Your task to perform on an android device: toggle javascript in the chrome app Image 0: 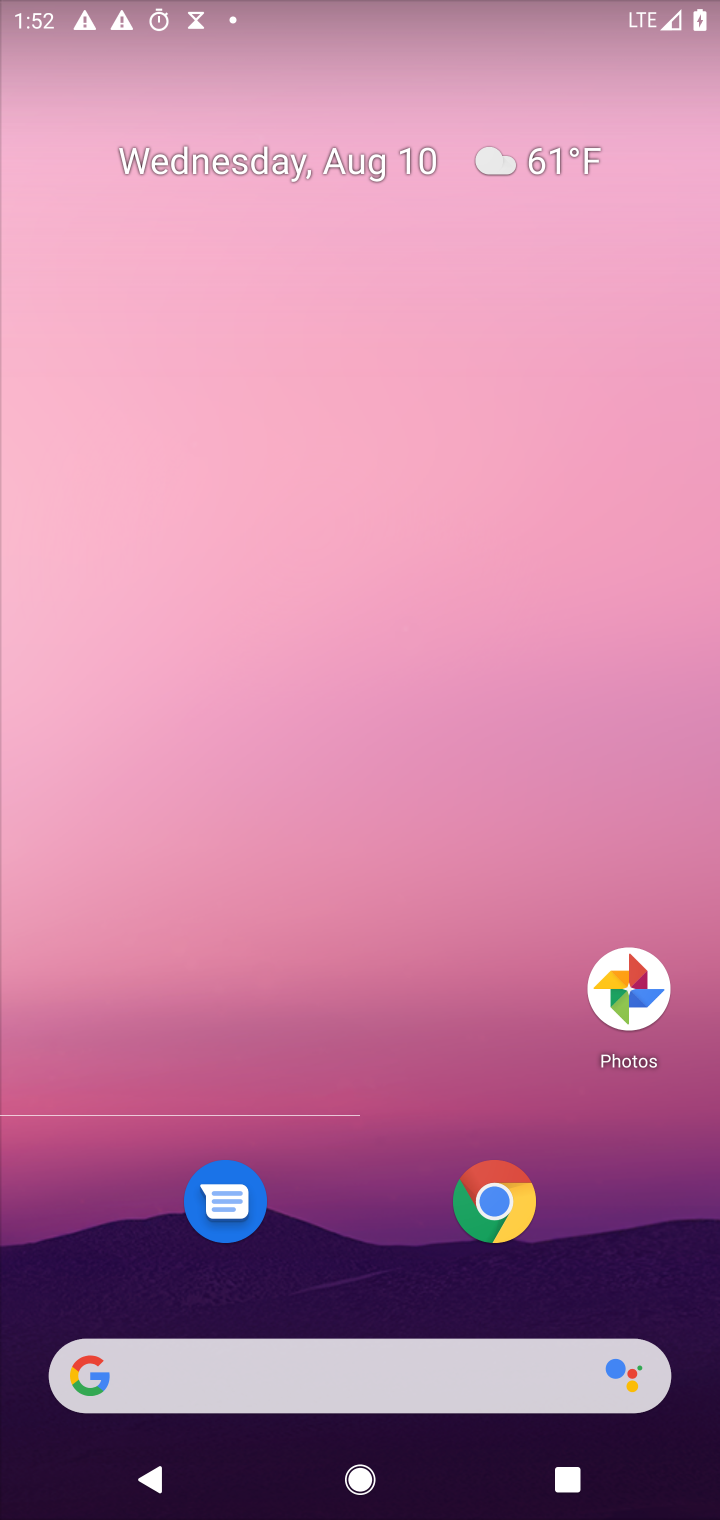
Step 0: click (497, 1211)
Your task to perform on an android device: toggle javascript in the chrome app Image 1: 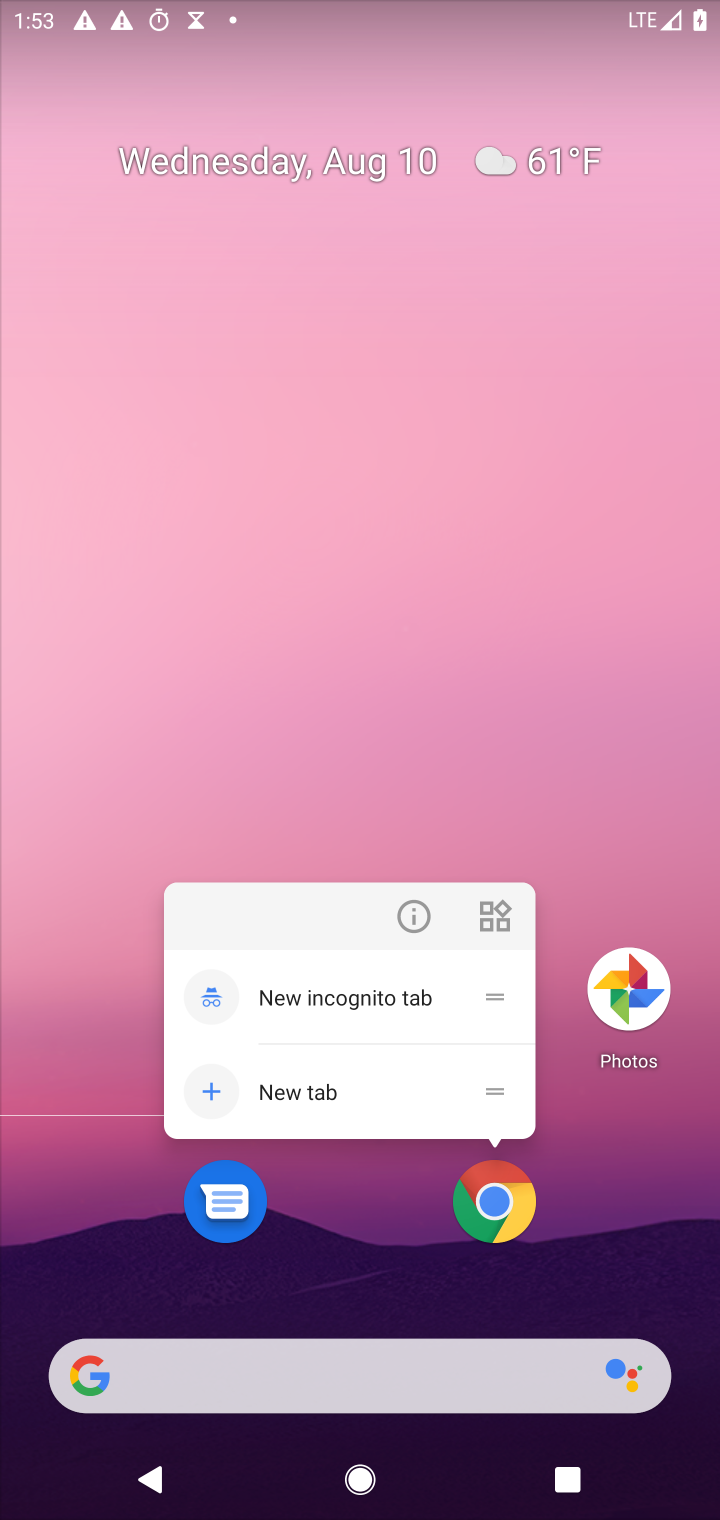
Step 1: click (497, 1211)
Your task to perform on an android device: toggle javascript in the chrome app Image 2: 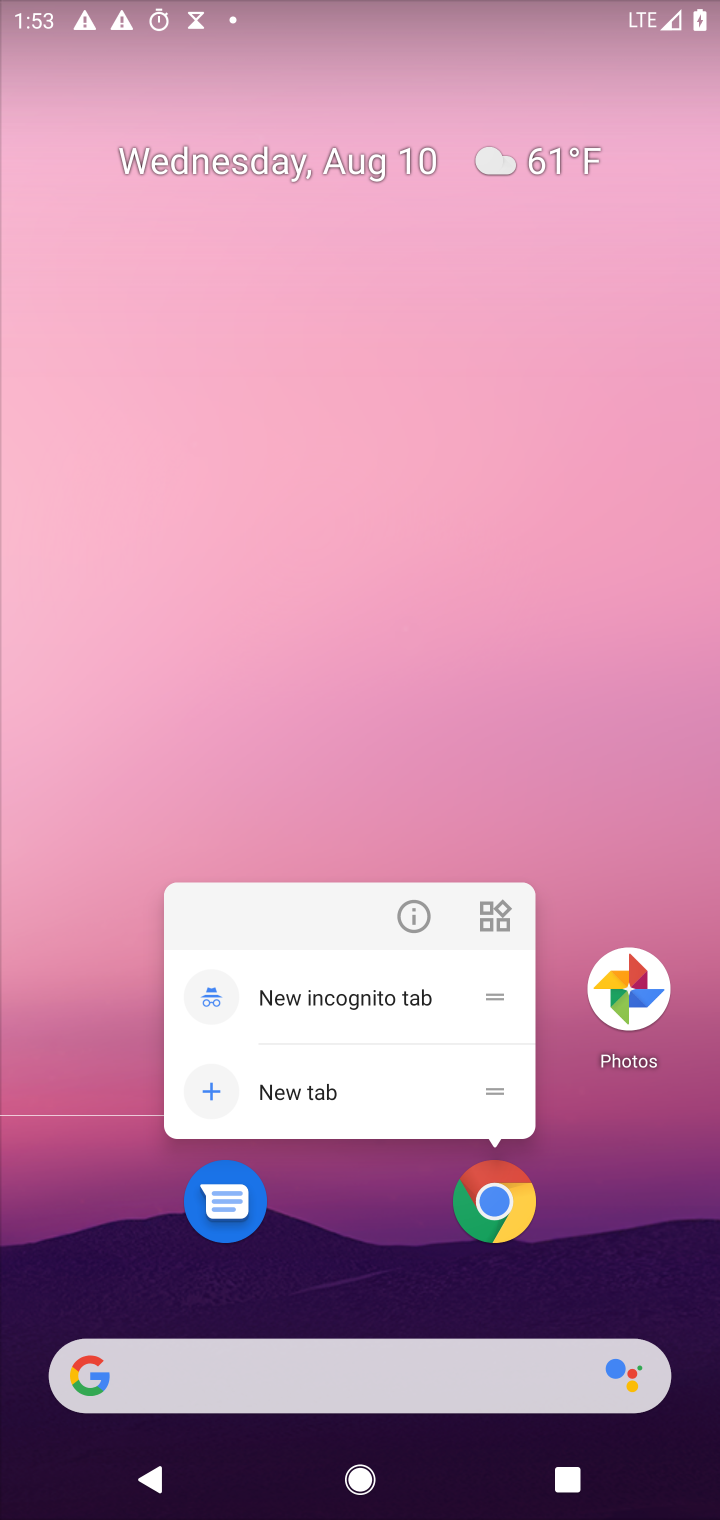
Step 2: click (497, 1211)
Your task to perform on an android device: toggle javascript in the chrome app Image 3: 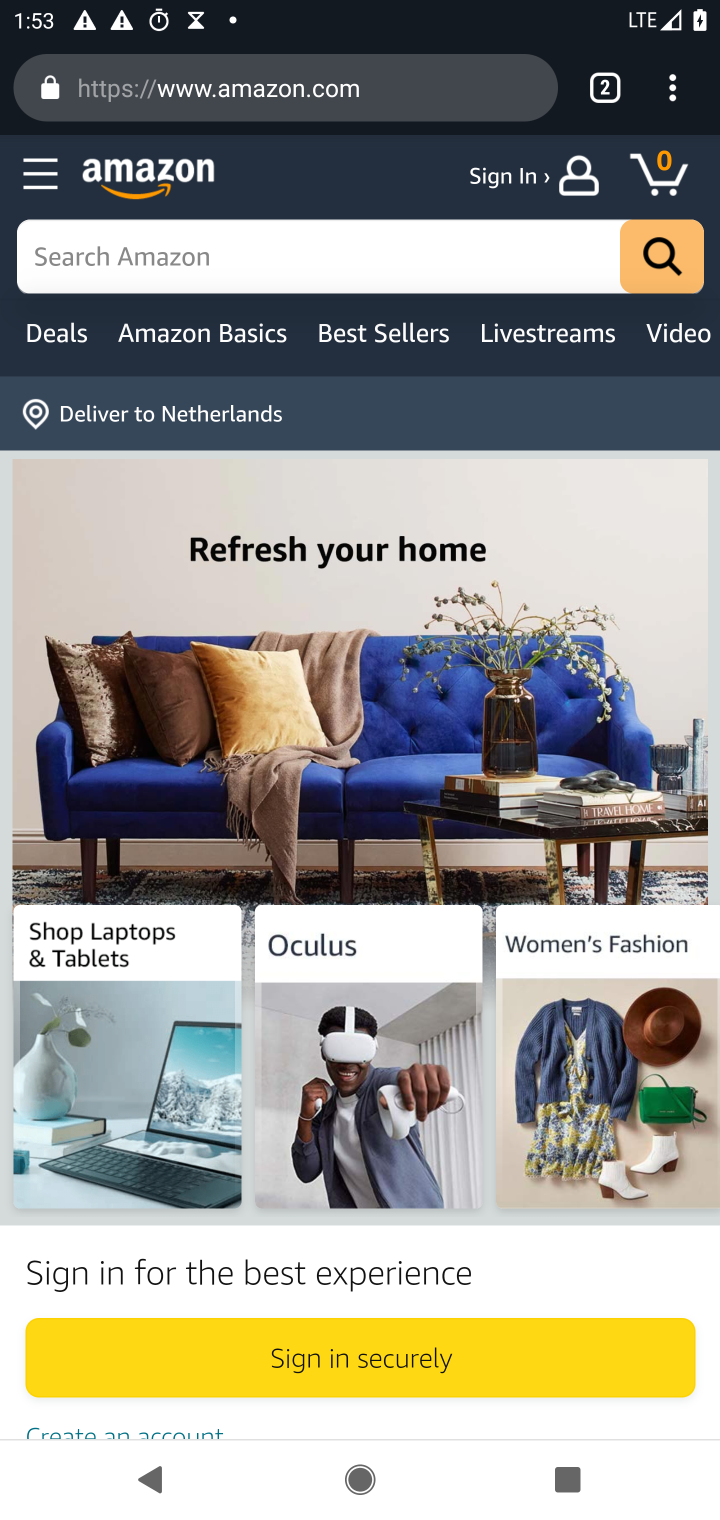
Step 3: drag from (683, 92) to (360, 1052)
Your task to perform on an android device: toggle javascript in the chrome app Image 4: 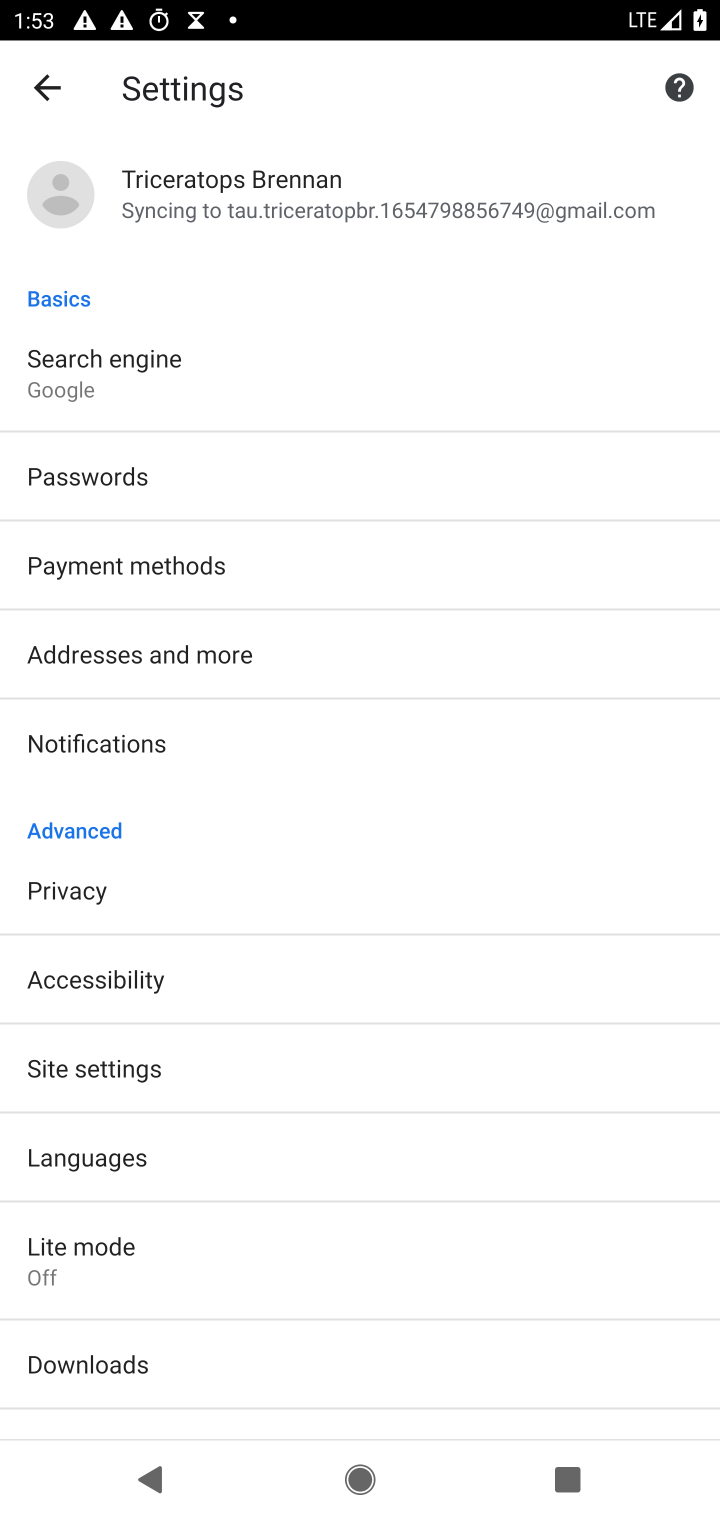
Step 4: click (105, 1061)
Your task to perform on an android device: toggle javascript in the chrome app Image 5: 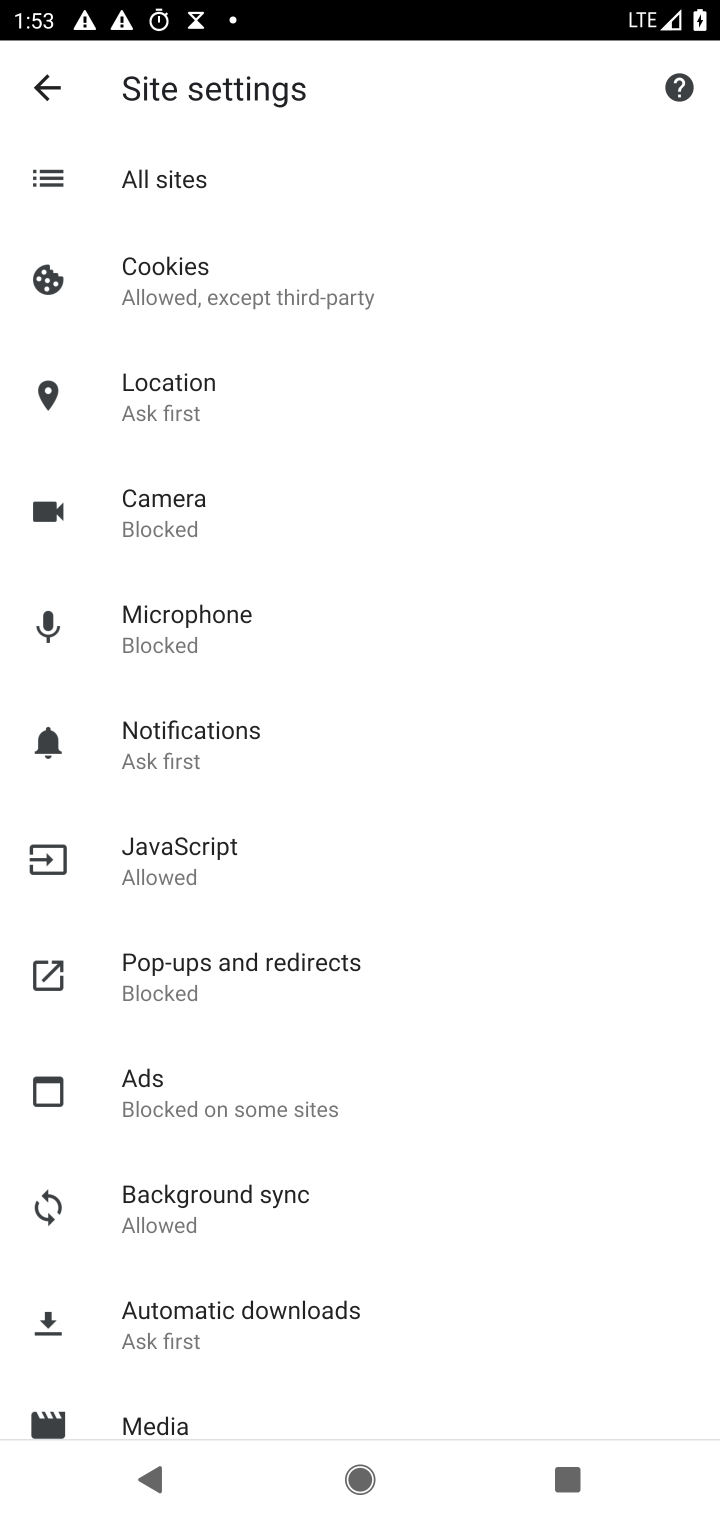
Step 5: click (155, 869)
Your task to perform on an android device: toggle javascript in the chrome app Image 6: 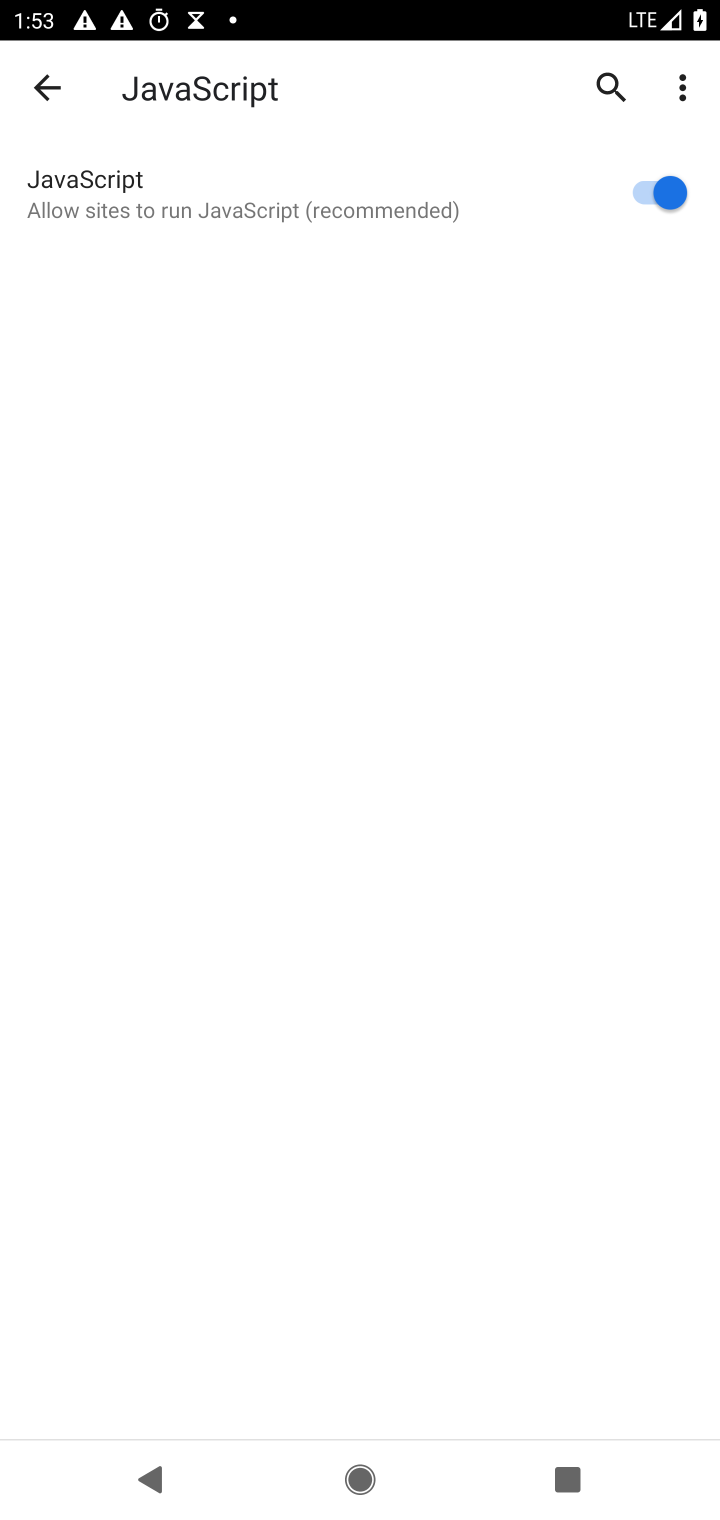
Step 6: click (683, 206)
Your task to perform on an android device: toggle javascript in the chrome app Image 7: 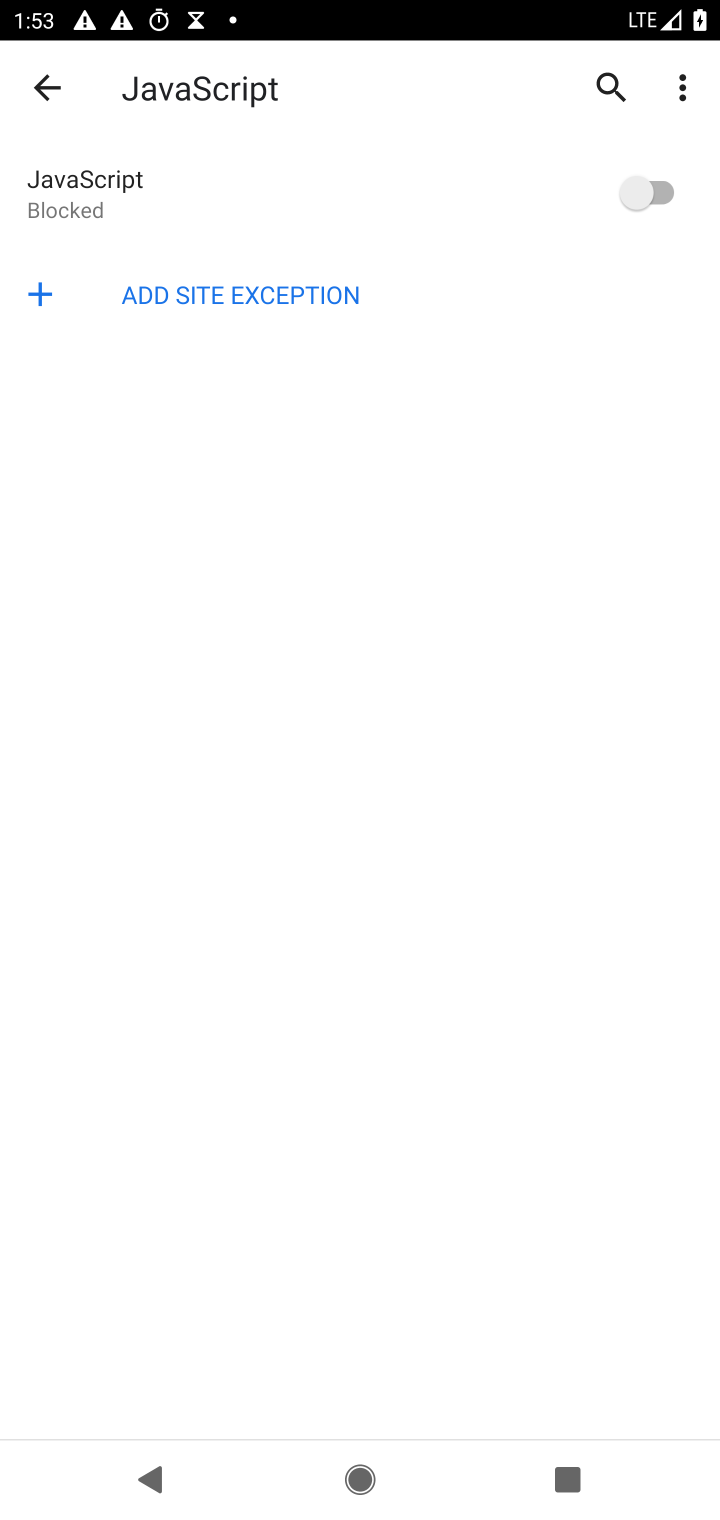
Step 7: task complete